Your task to perform on an android device: Go to battery settings Image 0: 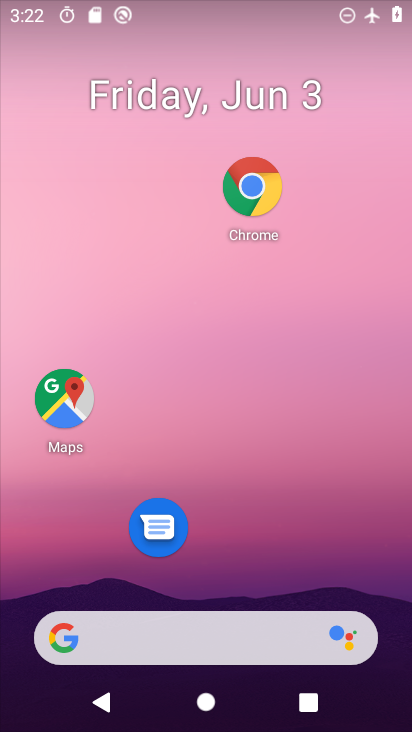
Step 0: drag from (261, 594) to (289, 202)
Your task to perform on an android device: Go to battery settings Image 1: 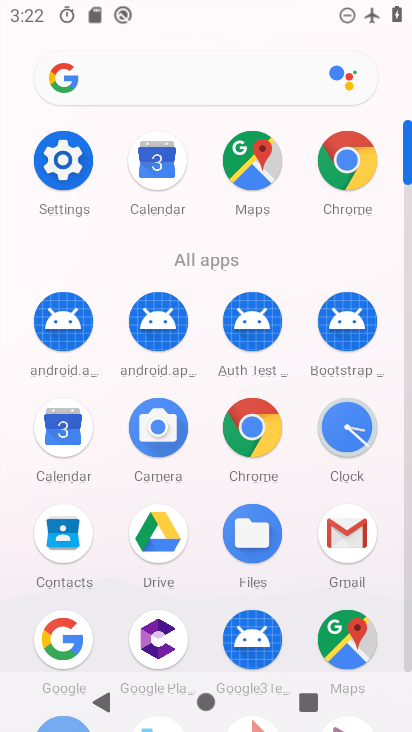
Step 1: click (60, 149)
Your task to perform on an android device: Go to battery settings Image 2: 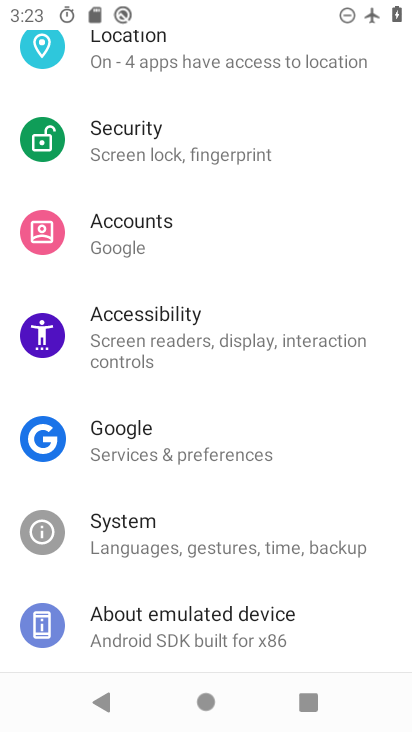
Step 2: drag from (219, 181) to (216, 604)
Your task to perform on an android device: Go to battery settings Image 3: 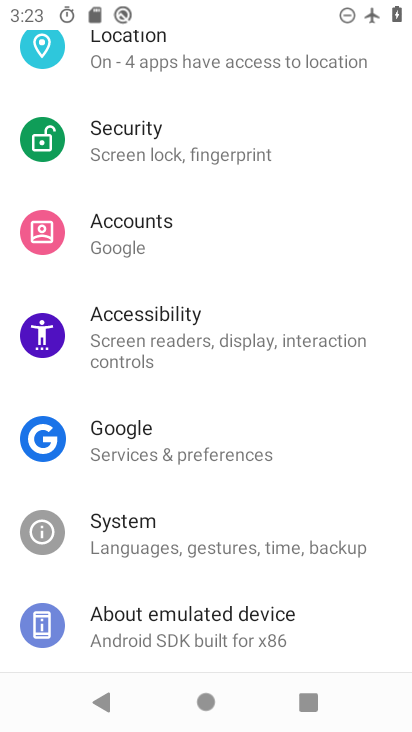
Step 3: drag from (218, 134) to (146, 598)
Your task to perform on an android device: Go to battery settings Image 4: 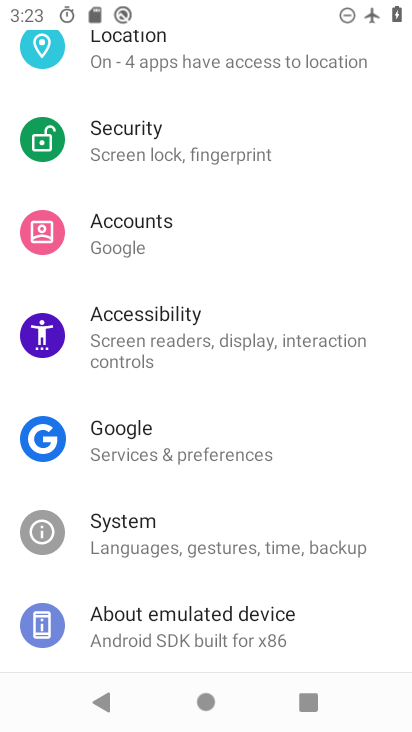
Step 4: drag from (136, 85) to (115, 443)
Your task to perform on an android device: Go to battery settings Image 5: 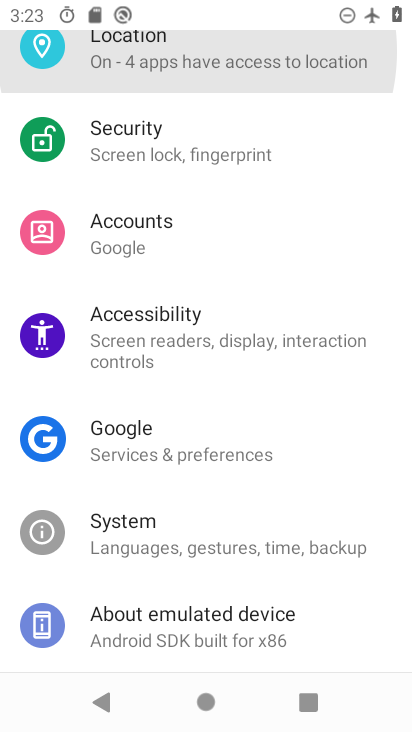
Step 5: drag from (134, 228) to (156, 512)
Your task to perform on an android device: Go to battery settings Image 6: 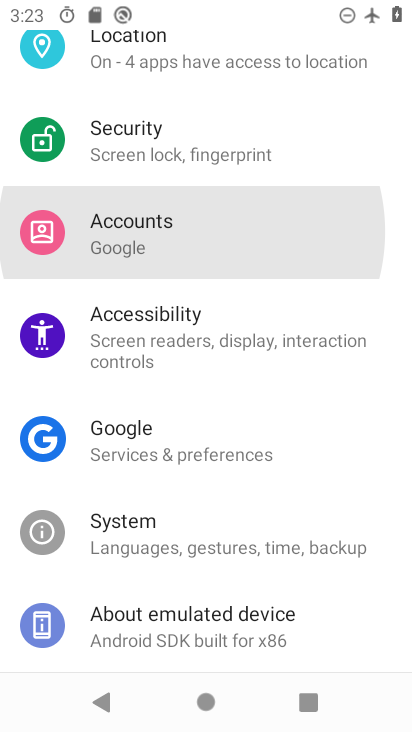
Step 6: drag from (119, 246) to (162, 533)
Your task to perform on an android device: Go to battery settings Image 7: 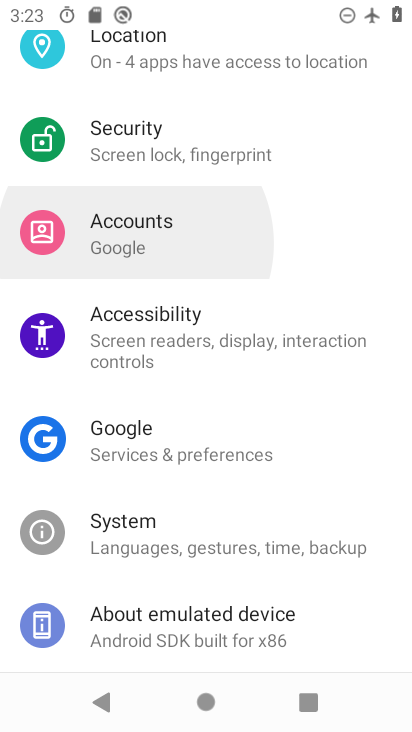
Step 7: drag from (155, 176) to (179, 564)
Your task to perform on an android device: Go to battery settings Image 8: 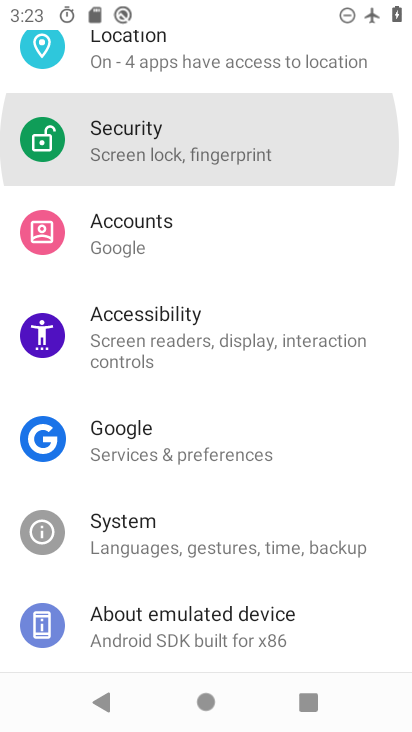
Step 8: drag from (228, 194) to (147, 488)
Your task to perform on an android device: Go to battery settings Image 9: 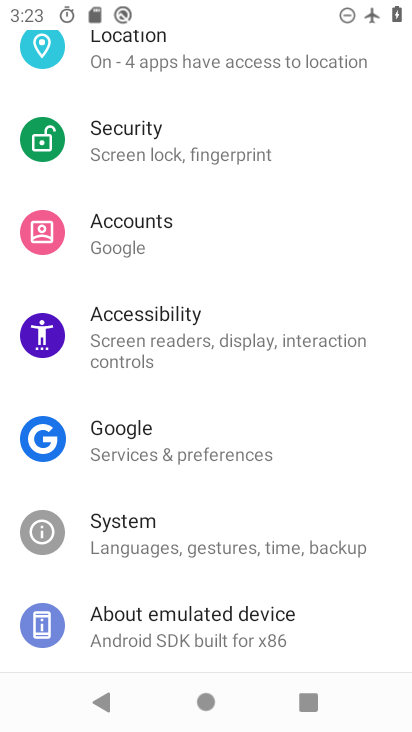
Step 9: drag from (190, 71) to (204, 311)
Your task to perform on an android device: Go to battery settings Image 10: 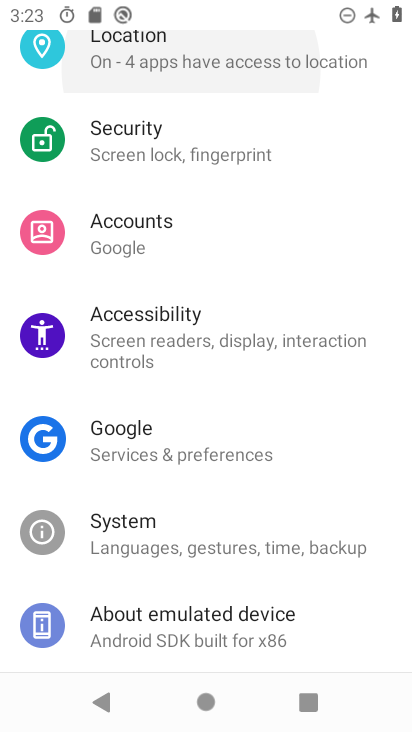
Step 10: drag from (205, 151) to (192, 439)
Your task to perform on an android device: Go to battery settings Image 11: 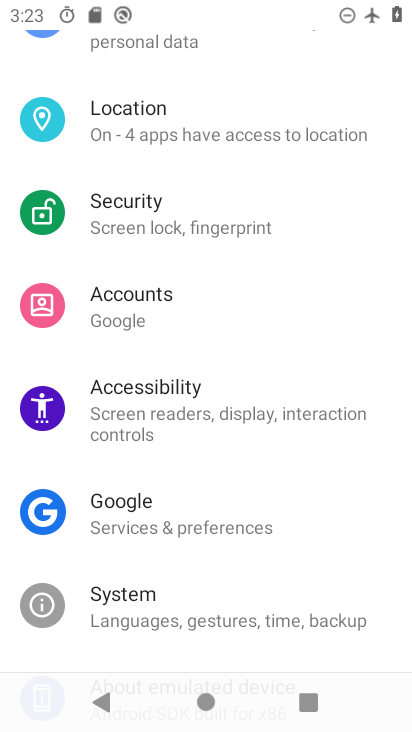
Step 11: drag from (156, 145) to (221, 459)
Your task to perform on an android device: Go to battery settings Image 12: 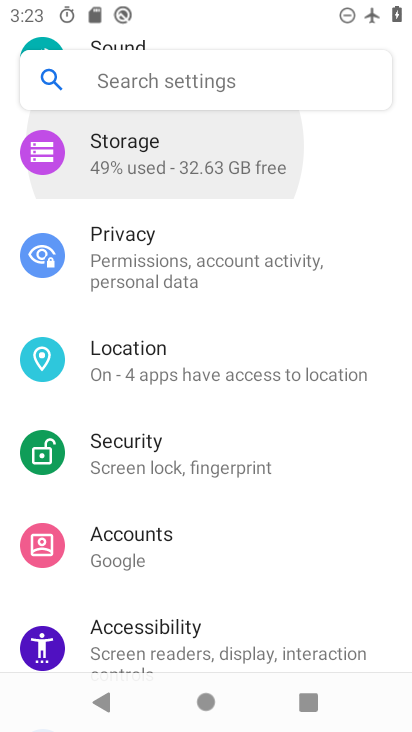
Step 12: drag from (193, 183) to (195, 457)
Your task to perform on an android device: Go to battery settings Image 13: 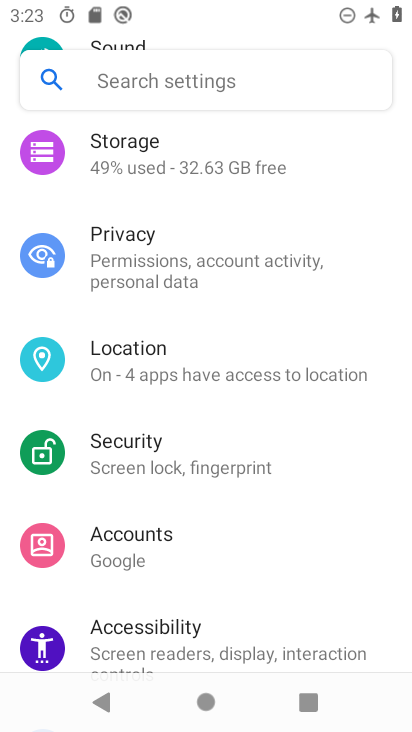
Step 13: drag from (178, 167) to (205, 431)
Your task to perform on an android device: Go to battery settings Image 14: 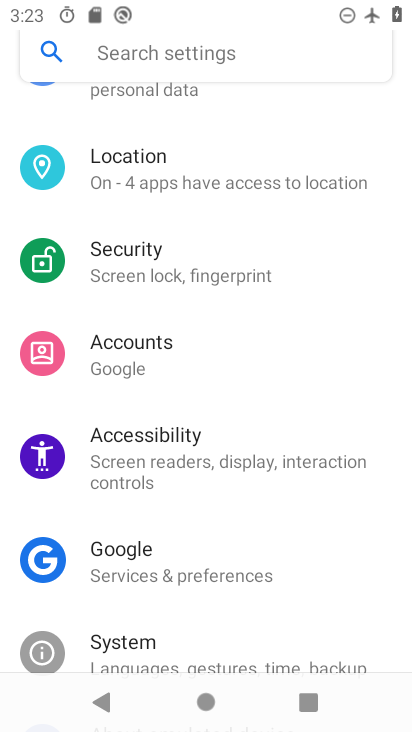
Step 14: drag from (201, 217) to (174, 415)
Your task to perform on an android device: Go to battery settings Image 15: 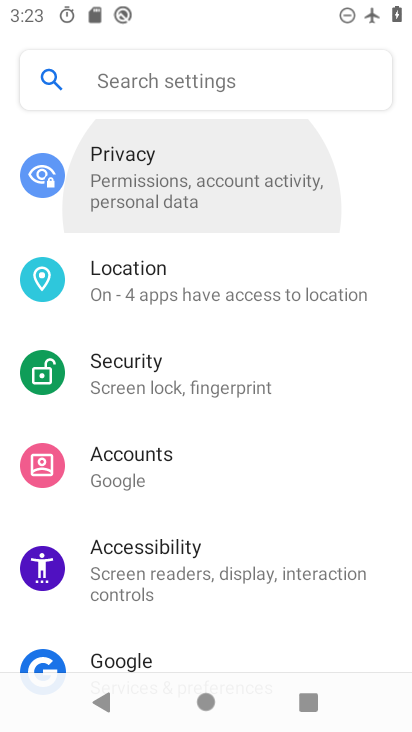
Step 15: drag from (126, 209) to (120, 460)
Your task to perform on an android device: Go to battery settings Image 16: 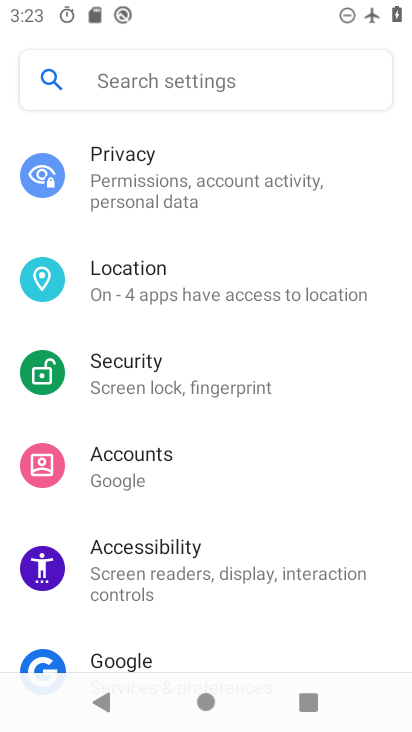
Step 16: drag from (195, 183) to (199, 557)
Your task to perform on an android device: Go to battery settings Image 17: 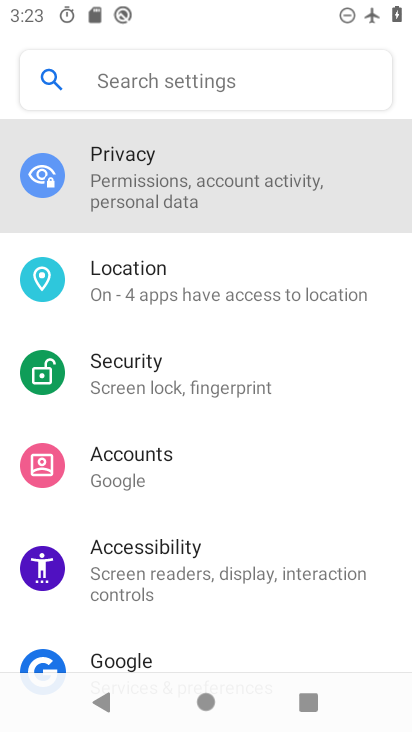
Step 17: drag from (203, 317) to (231, 473)
Your task to perform on an android device: Go to battery settings Image 18: 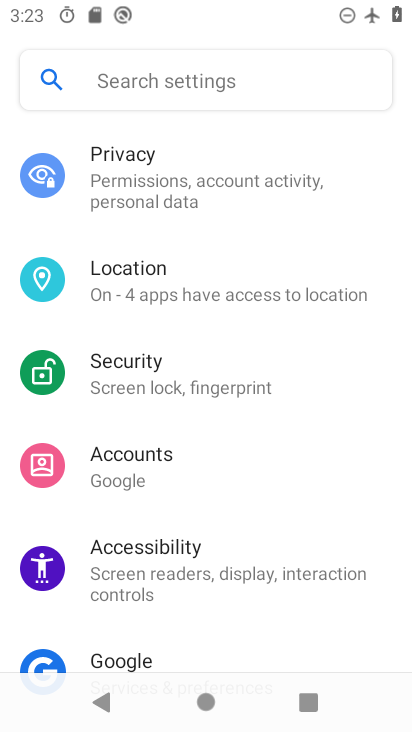
Step 18: drag from (244, 181) to (230, 526)
Your task to perform on an android device: Go to battery settings Image 19: 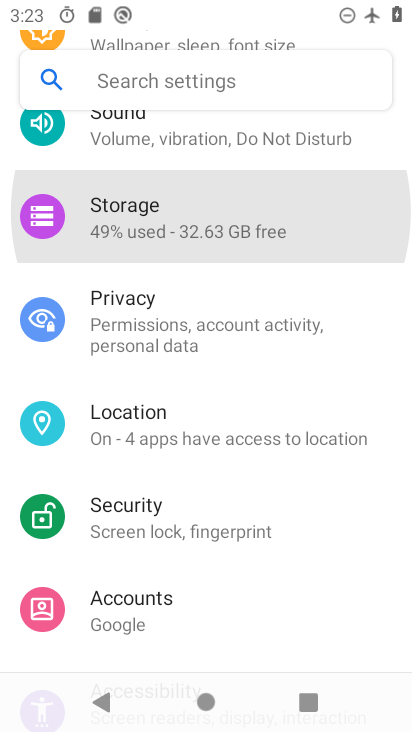
Step 19: drag from (145, 245) to (153, 428)
Your task to perform on an android device: Go to battery settings Image 20: 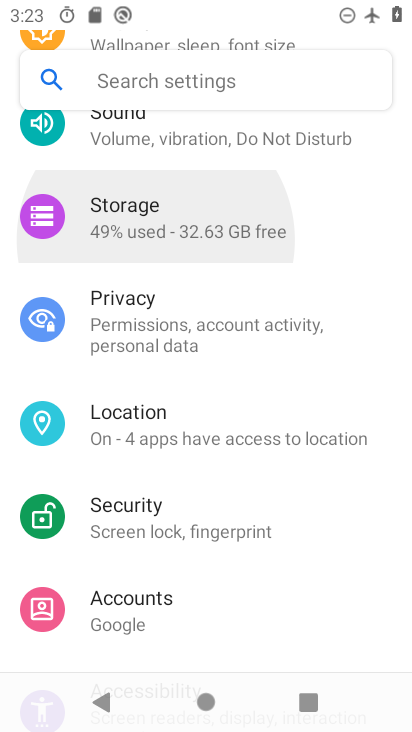
Step 20: drag from (165, 200) to (185, 520)
Your task to perform on an android device: Go to battery settings Image 21: 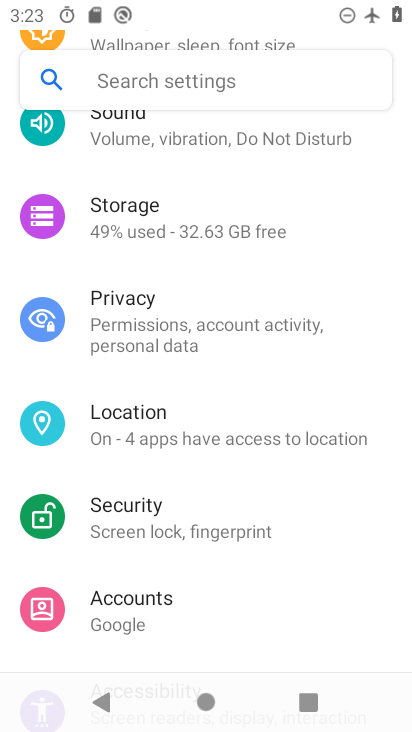
Step 21: drag from (191, 182) to (209, 424)
Your task to perform on an android device: Go to battery settings Image 22: 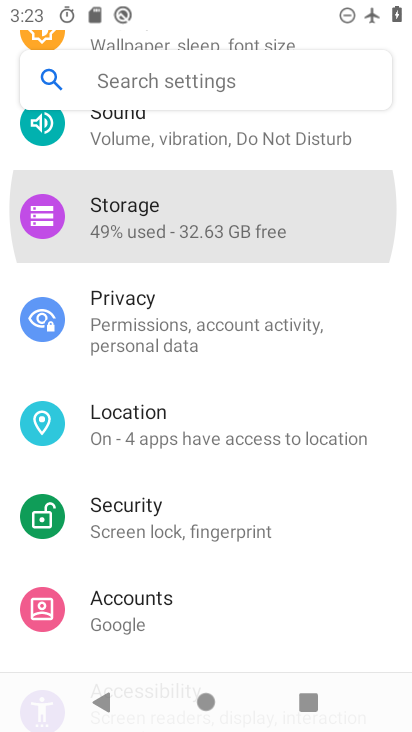
Step 22: drag from (224, 198) to (220, 464)
Your task to perform on an android device: Go to battery settings Image 23: 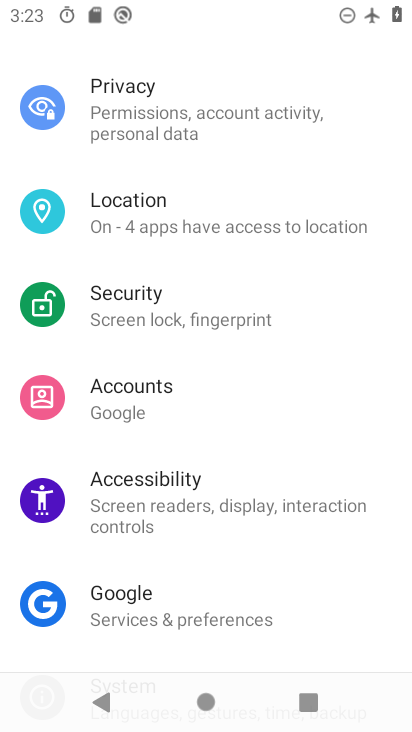
Step 23: drag from (182, 230) to (179, 469)
Your task to perform on an android device: Go to battery settings Image 24: 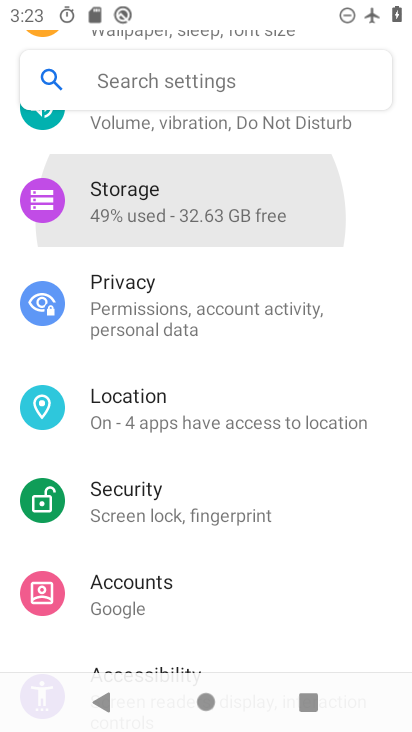
Step 24: drag from (167, 215) to (170, 426)
Your task to perform on an android device: Go to battery settings Image 25: 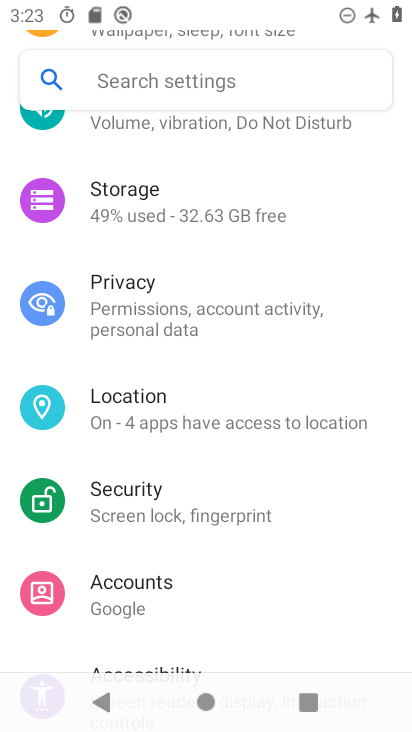
Step 25: drag from (183, 227) to (177, 530)
Your task to perform on an android device: Go to battery settings Image 26: 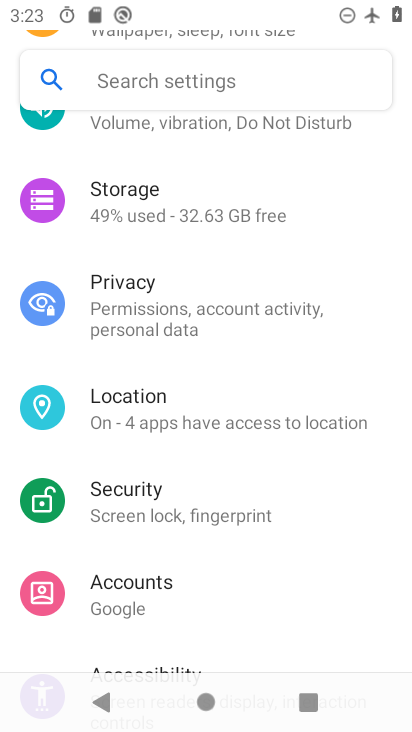
Step 26: drag from (244, 257) to (198, 362)
Your task to perform on an android device: Go to battery settings Image 27: 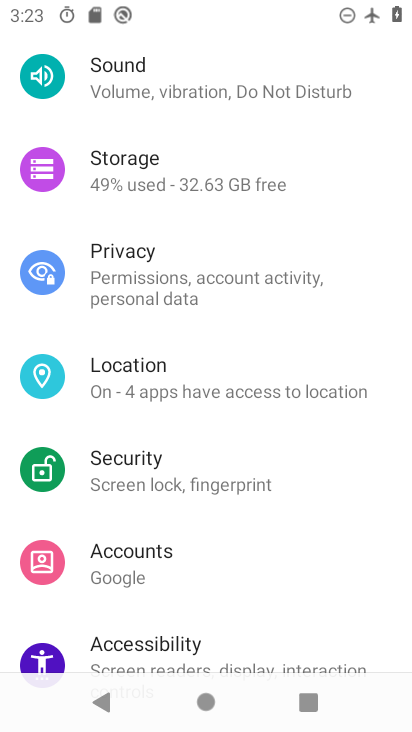
Step 27: drag from (55, 53) to (104, 539)
Your task to perform on an android device: Go to battery settings Image 28: 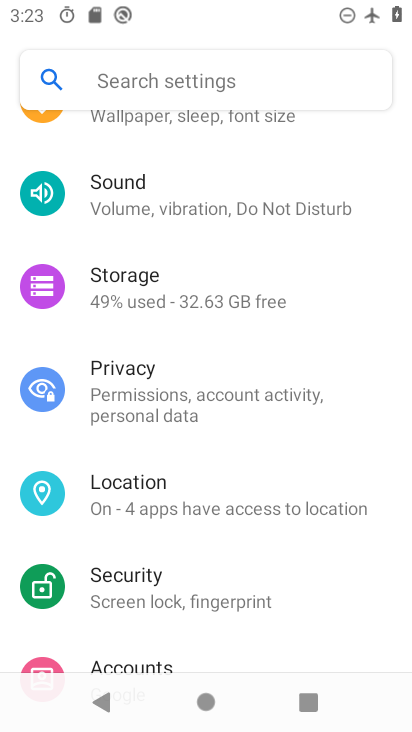
Step 28: drag from (168, 201) to (181, 368)
Your task to perform on an android device: Go to battery settings Image 29: 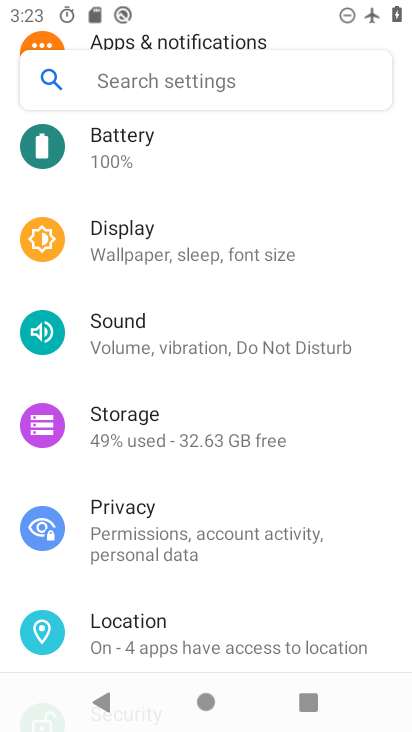
Step 29: click (120, 157)
Your task to perform on an android device: Go to battery settings Image 30: 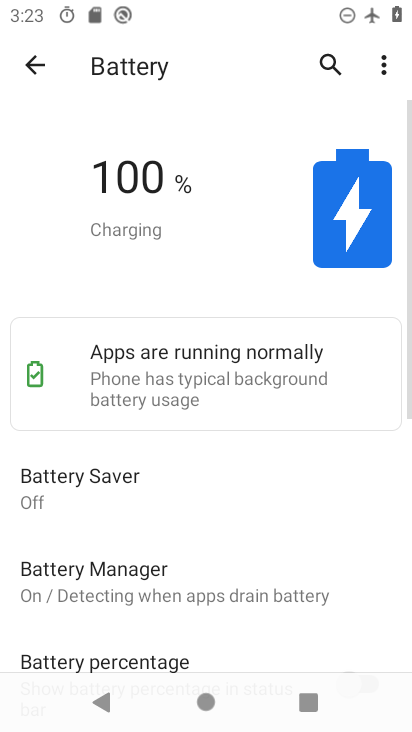
Step 30: task complete